Your task to perform on an android device: Go to Reddit.com Image 0: 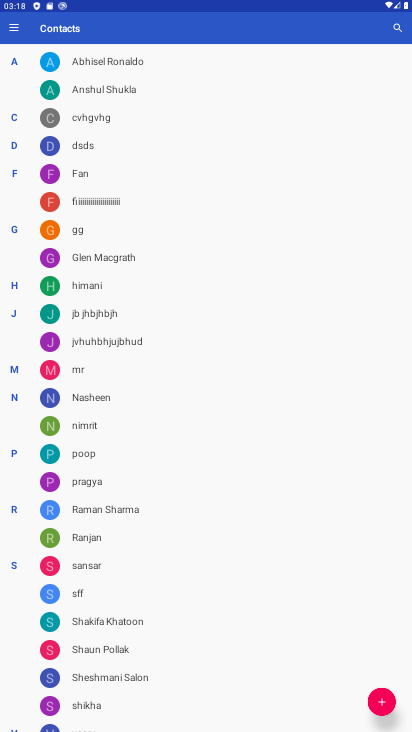
Step 0: press home button
Your task to perform on an android device: Go to Reddit.com Image 1: 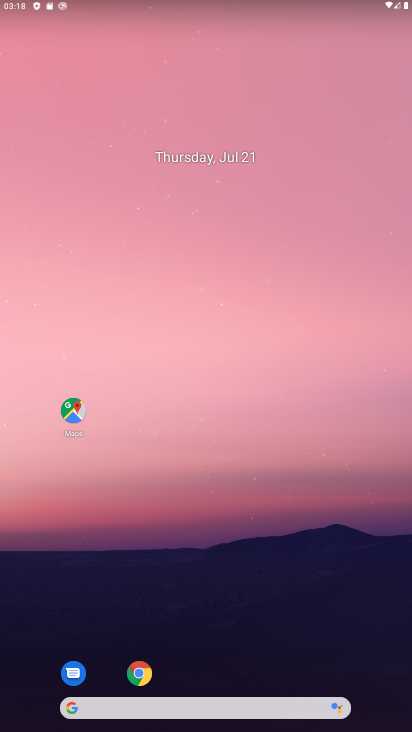
Step 1: drag from (313, 681) to (297, 86)
Your task to perform on an android device: Go to Reddit.com Image 2: 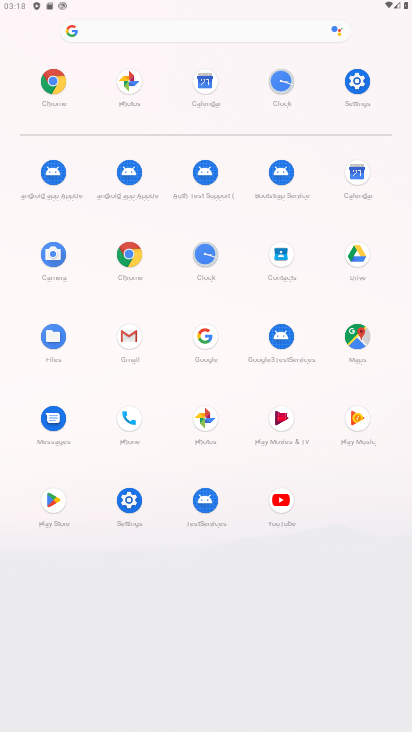
Step 2: click (122, 256)
Your task to perform on an android device: Go to Reddit.com Image 3: 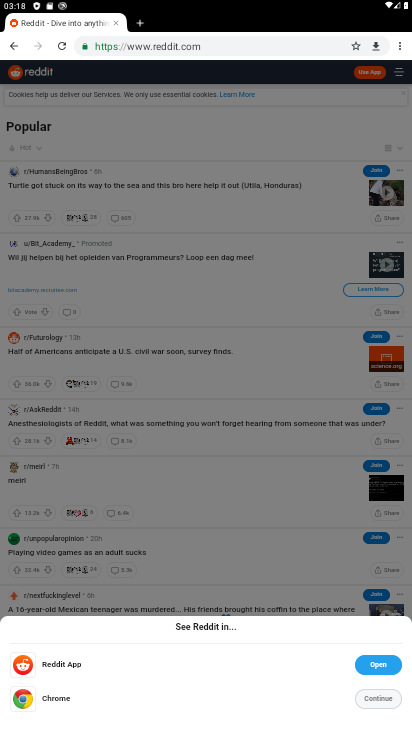
Step 3: task complete